Your task to perform on an android device: move a message to another label in the gmail app Image 0: 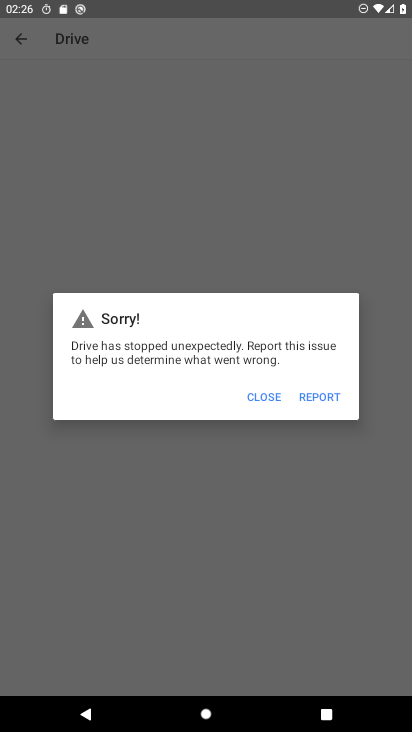
Step 0: press home button
Your task to perform on an android device: move a message to another label in the gmail app Image 1: 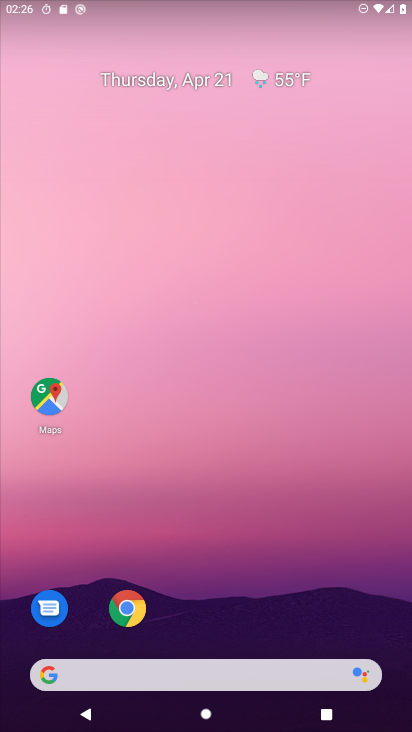
Step 1: drag from (194, 584) to (160, 191)
Your task to perform on an android device: move a message to another label in the gmail app Image 2: 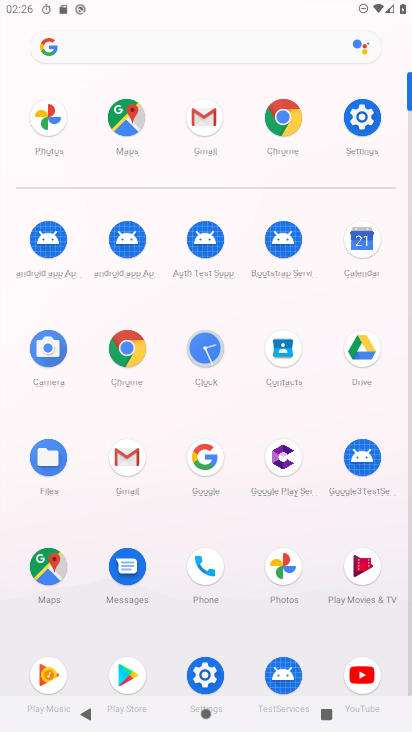
Step 2: click (212, 120)
Your task to perform on an android device: move a message to another label in the gmail app Image 3: 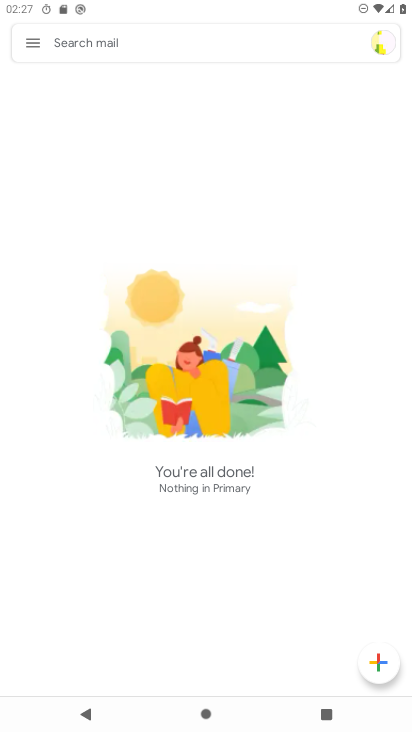
Step 3: click (29, 44)
Your task to perform on an android device: move a message to another label in the gmail app Image 4: 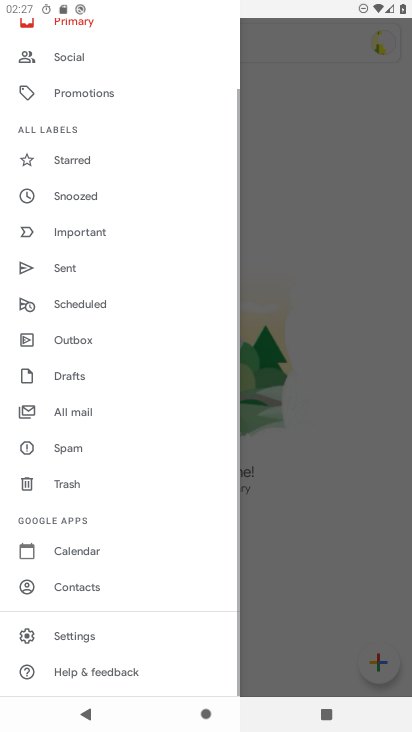
Step 4: drag from (78, 144) to (110, 424)
Your task to perform on an android device: move a message to another label in the gmail app Image 5: 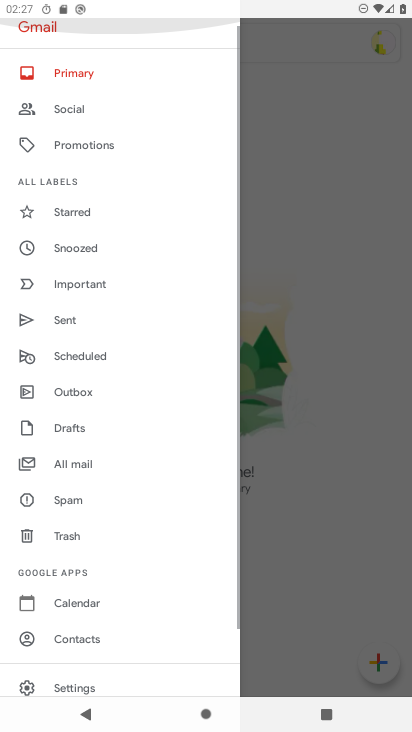
Step 5: click (79, 86)
Your task to perform on an android device: move a message to another label in the gmail app Image 6: 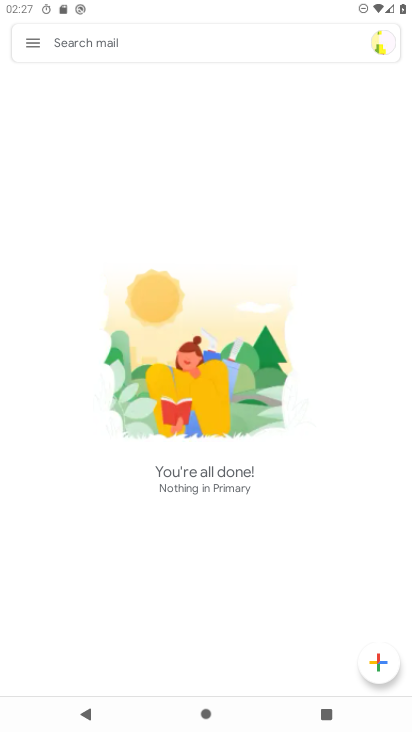
Step 6: task complete